Your task to perform on an android device: see creations saved in the google photos Image 0: 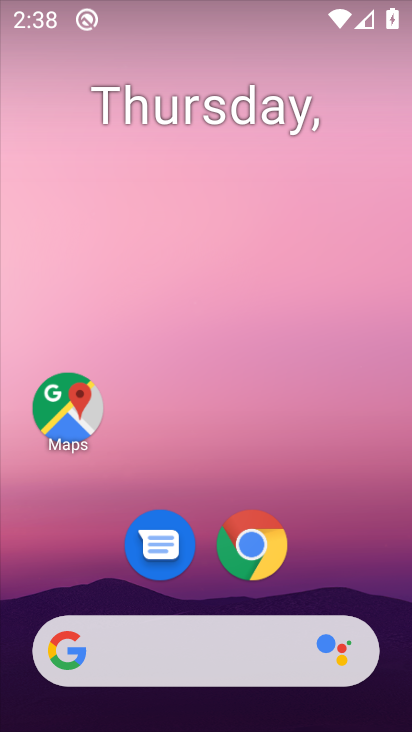
Step 0: drag from (225, 617) to (288, 371)
Your task to perform on an android device: see creations saved in the google photos Image 1: 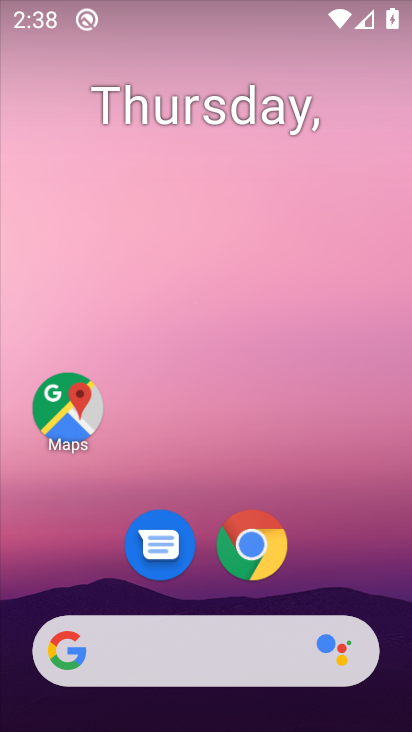
Step 1: drag from (212, 628) to (288, 137)
Your task to perform on an android device: see creations saved in the google photos Image 2: 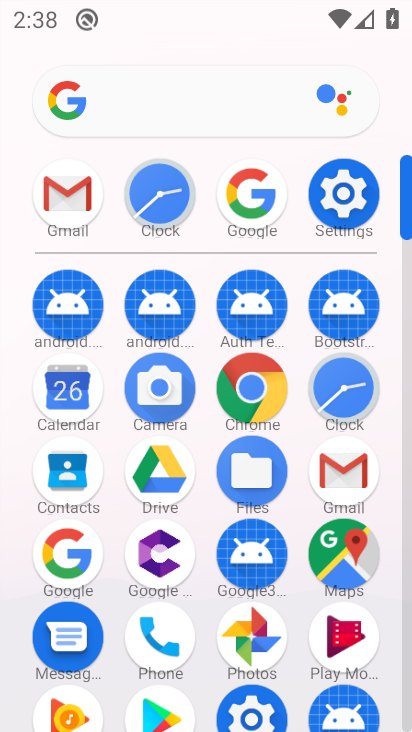
Step 2: click (240, 651)
Your task to perform on an android device: see creations saved in the google photos Image 3: 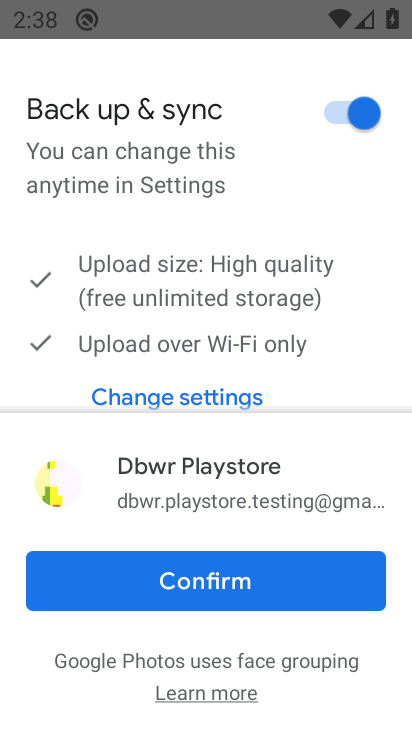
Step 3: click (229, 576)
Your task to perform on an android device: see creations saved in the google photos Image 4: 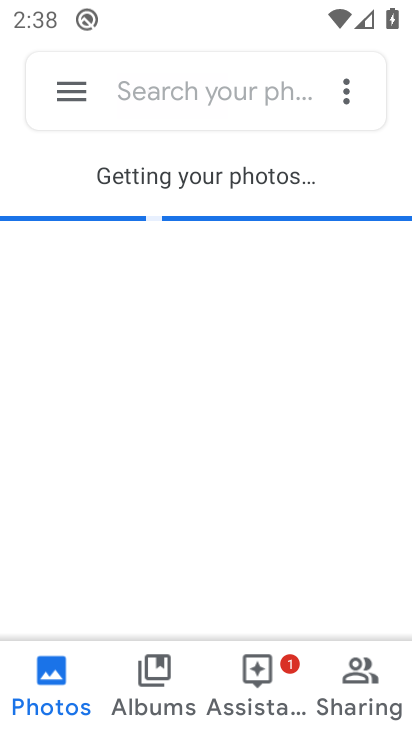
Step 4: click (147, 688)
Your task to perform on an android device: see creations saved in the google photos Image 5: 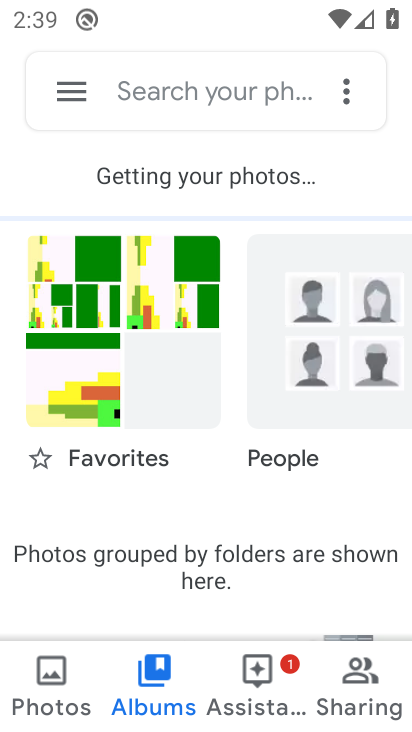
Step 5: task complete